Your task to perform on an android device: Open Chrome and go to settings Image 0: 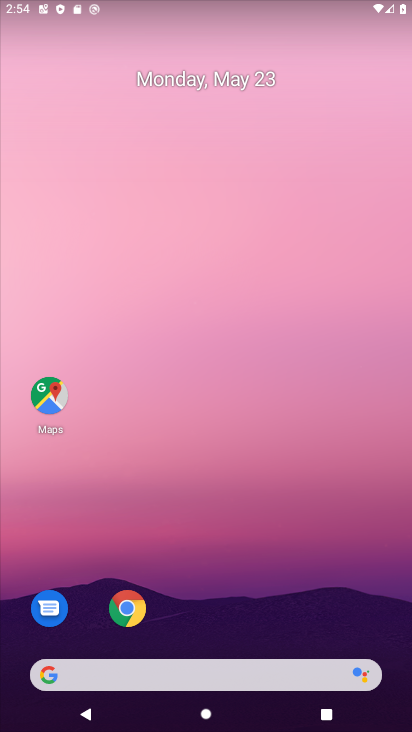
Step 0: click (126, 609)
Your task to perform on an android device: Open Chrome and go to settings Image 1: 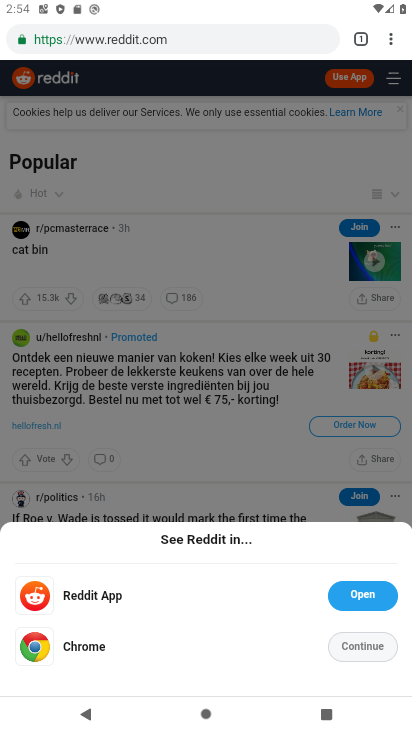
Step 1: click (390, 39)
Your task to perform on an android device: Open Chrome and go to settings Image 2: 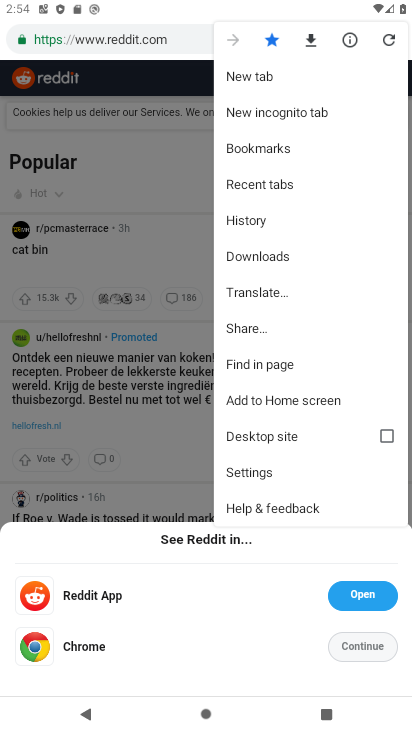
Step 2: click (262, 471)
Your task to perform on an android device: Open Chrome and go to settings Image 3: 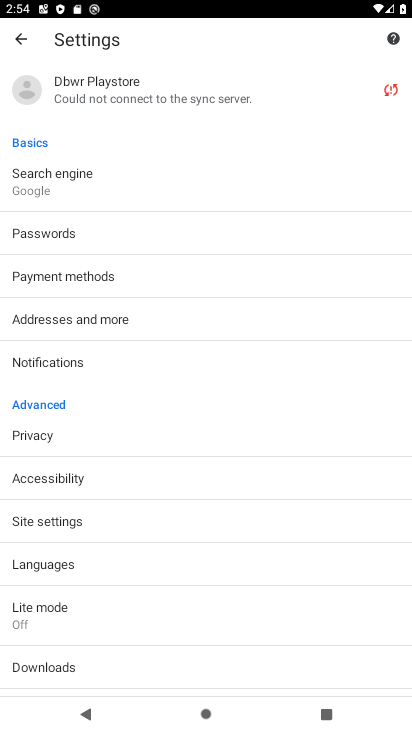
Step 3: task complete